Your task to perform on an android device: change timer sound Image 0: 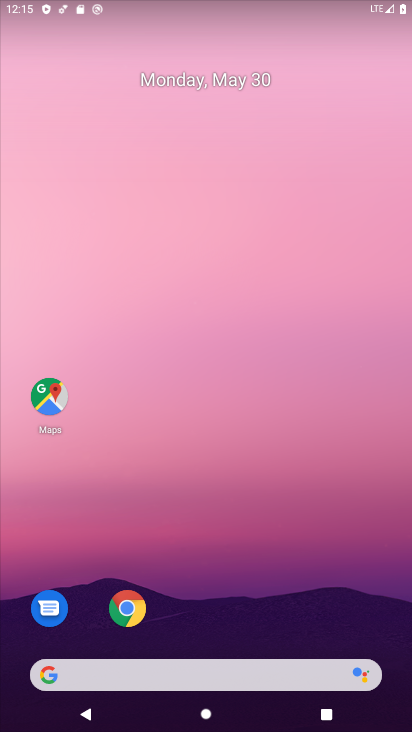
Step 0: drag from (224, 567) to (293, 13)
Your task to perform on an android device: change timer sound Image 1: 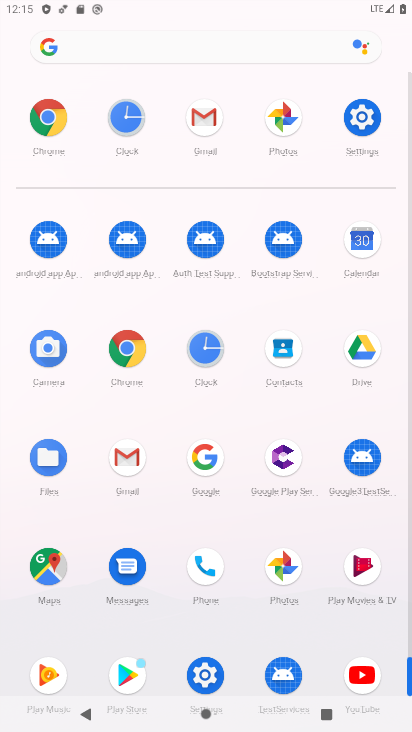
Step 1: click (197, 355)
Your task to perform on an android device: change timer sound Image 2: 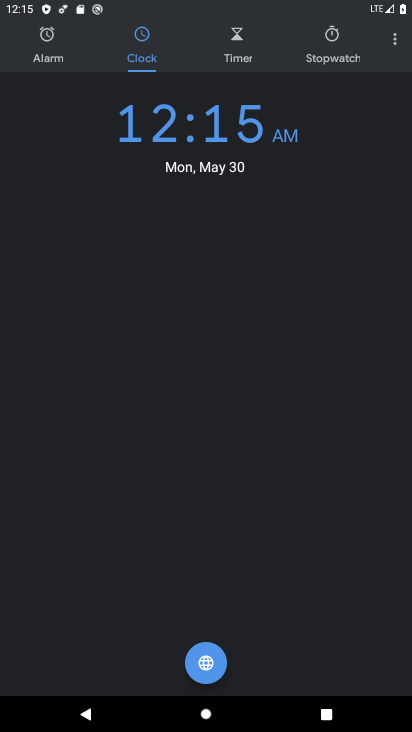
Step 2: click (399, 51)
Your task to perform on an android device: change timer sound Image 3: 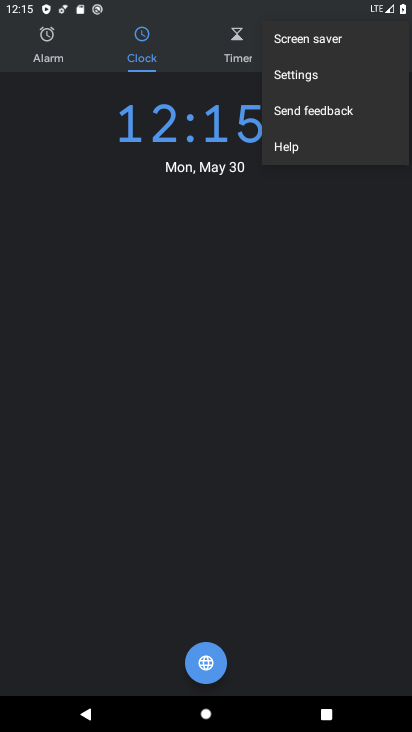
Step 3: click (292, 77)
Your task to perform on an android device: change timer sound Image 4: 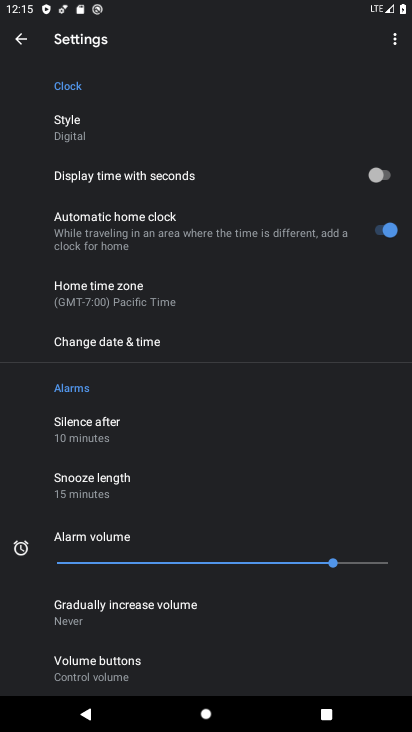
Step 4: drag from (122, 529) to (122, 316)
Your task to perform on an android device: change timer sound Image 5: 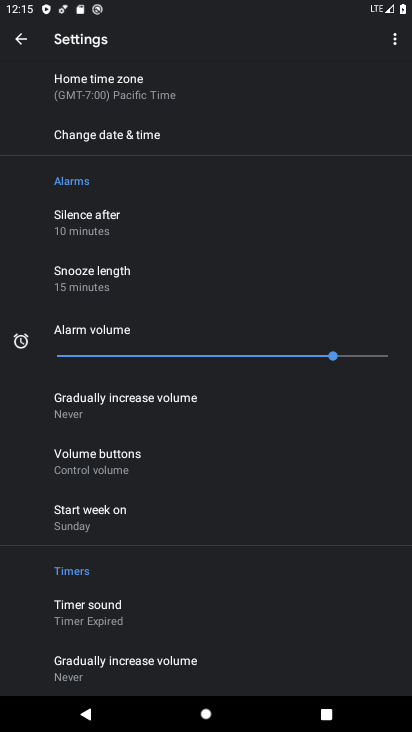
Step 5: click (144, 609)
Your task to perform on an android device: change timer sound Image 6: 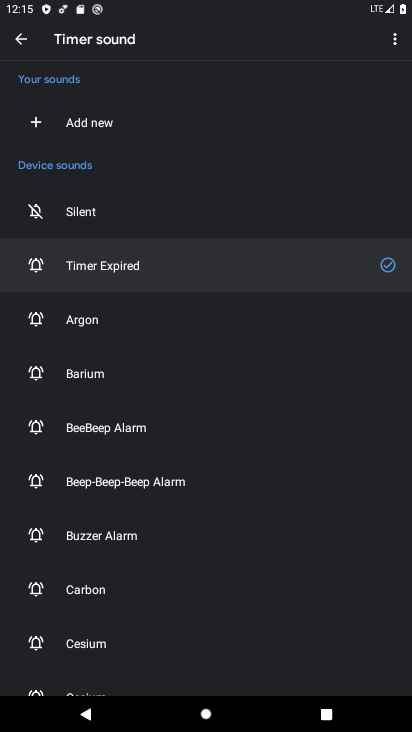
Step 6: click (93, 376)
Your task to perform on an android device: change timer sound Image 7: 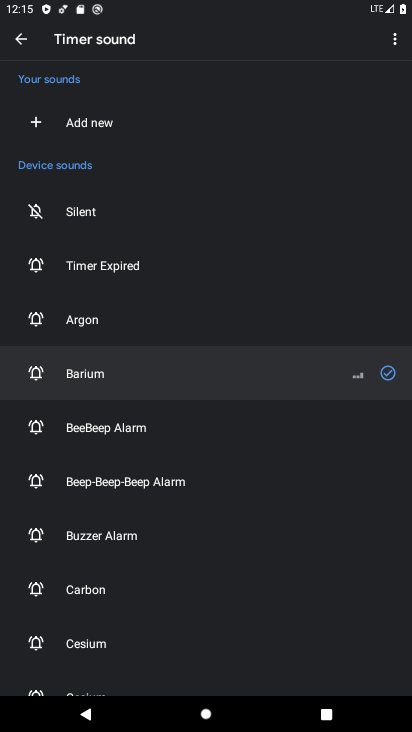
Step 7: task complete